Your task to perform on an android device: Open the stopwatch Image 0: 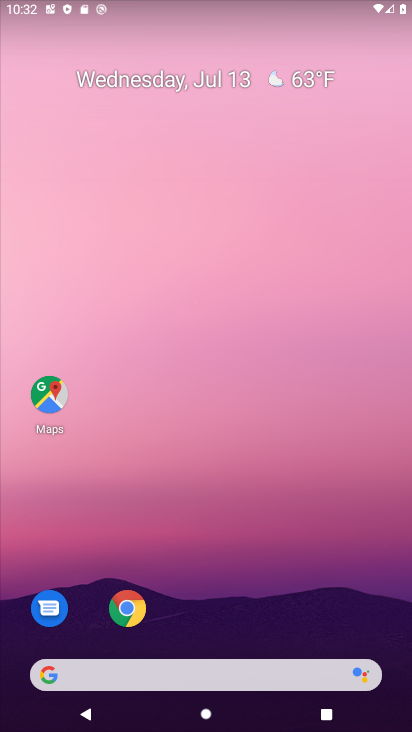
Step 0: press home button
Your task to perform on an android device: Open the stopwatch Image 1: 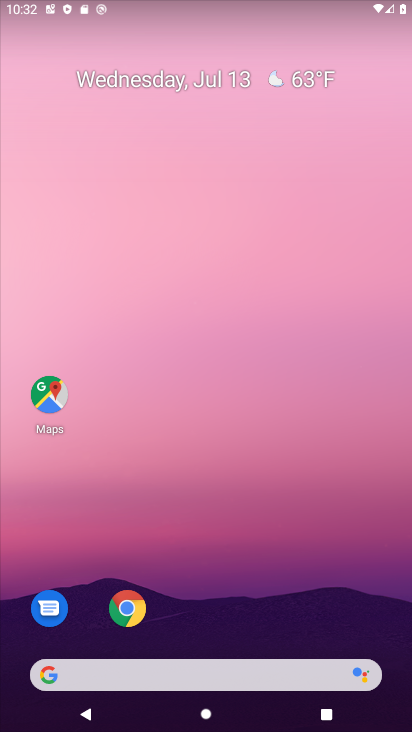
Step 1: drag from (305, 631) to (339, 177)
Your task to perform on an android device: Open the stopwatch Image 2: 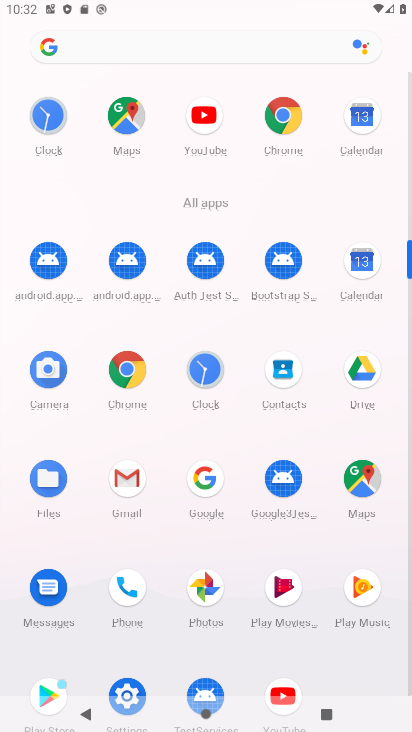
Step 2: click (209, 364)
Your task to perform on an android device: Open the stopwatch Image 3: 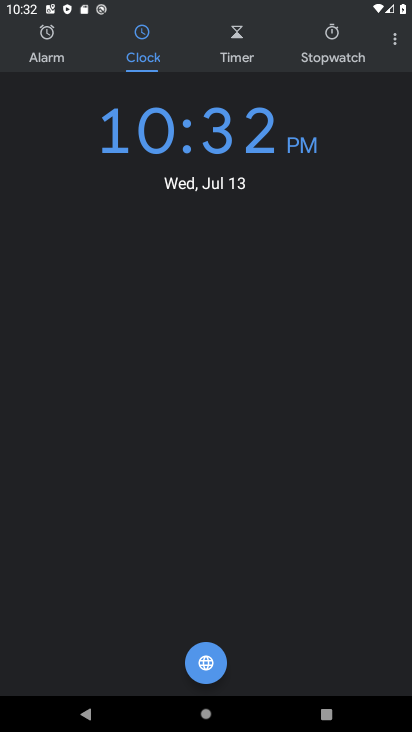
Step 3: click (329, 37)
Your task to perform on an android device: Open the stopwatch Image 4: 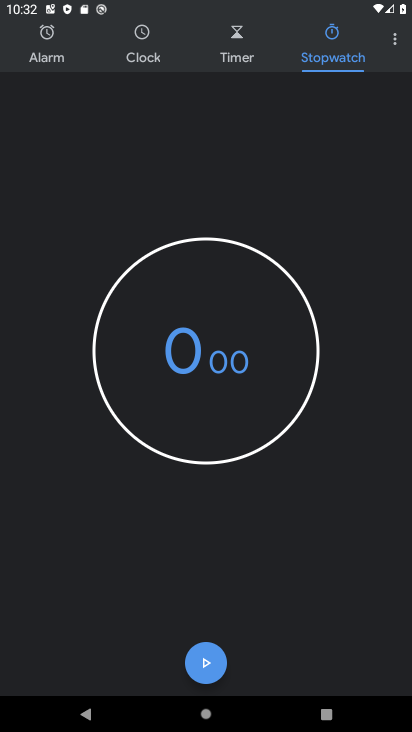
Step 4: task complete